Your task to perform on an android device: Open sound settings Image 0: 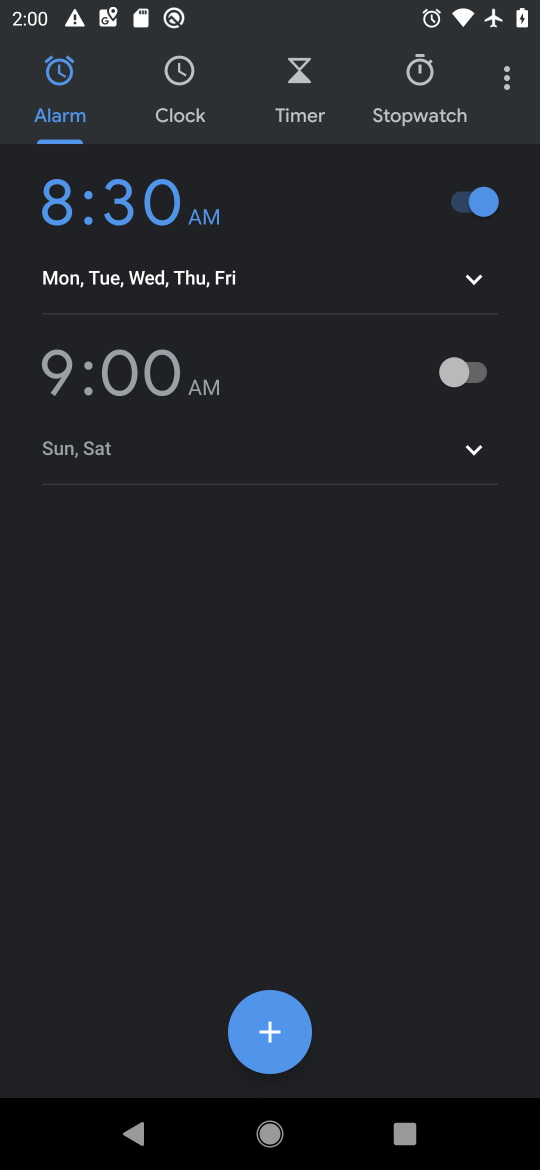
Step 0: task complete